Your task to perform on an android device: Show the shopping cart on amazon.com. Add macbook air to the cart on amazon.com, then select checkout. Image 0: 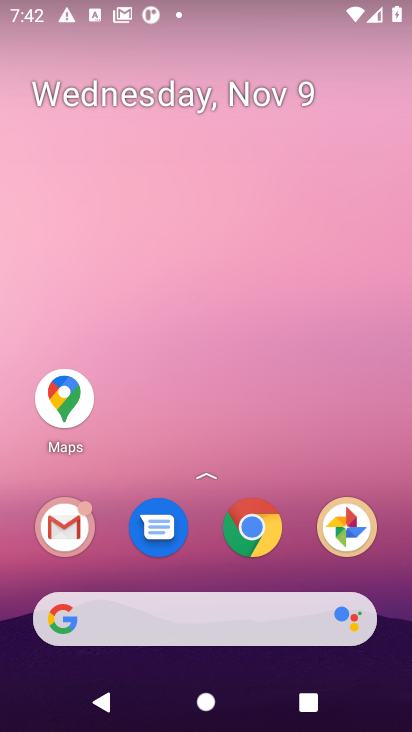
Step 0: click (266, 541)
Your task to perform on an android device: Show the shopping cart on amazon.com. Add macbook air to the cart on amazon.com, then select checkout. Image 1: 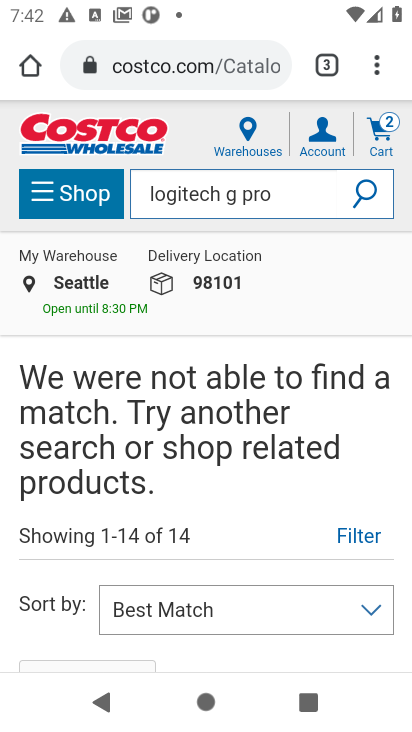
Step 1: click (204, 61)
Your task to perform on an android device: Show the shopping cart on amazon.com. Add macbook air to the cart on amazon.com, then select checkout. Image 2: 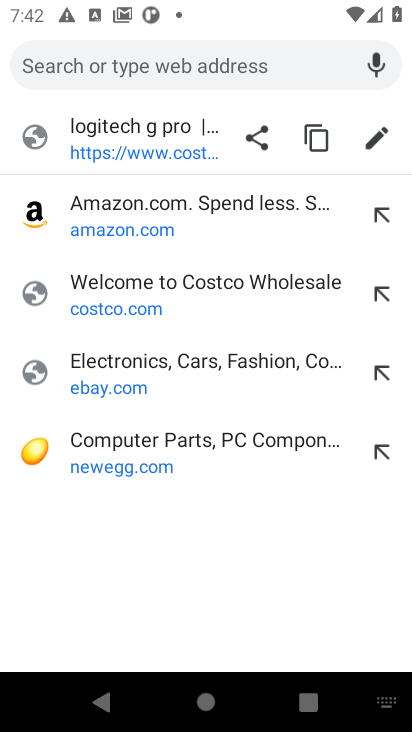
Step 2: click (81, 226)
Your task to perform on an android device: Show the shopping cart on amazon.com. Add macbook air to the cart on amazon.com, then select checkout. Image 3: 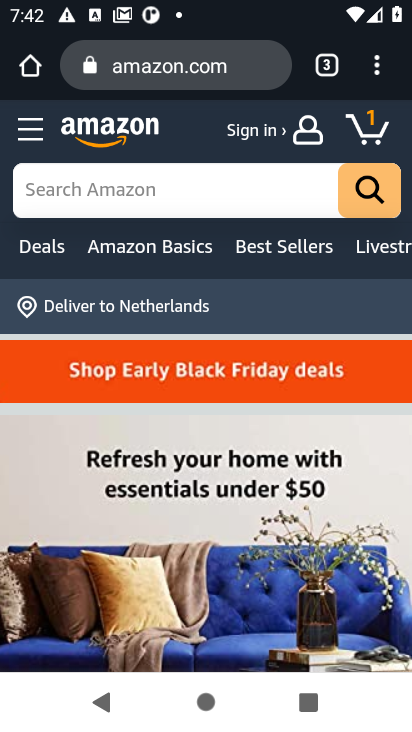
Step 3: click (365, 130)
Your task to perform on an android device: Show the shopping cart on amazon.com. Add macbook air to the cart on amazon.com, then select checkout. Image 4: 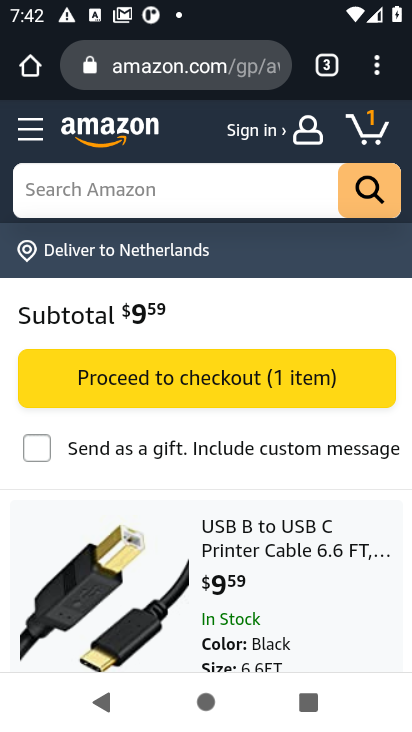
Step 4: drag from (194, 482) to (205, 297)
Your task to perform on an android device: Show the shopping cart on amazon.com. Add macbook air to the cart on amazon.com, then select checkout. Image 5: 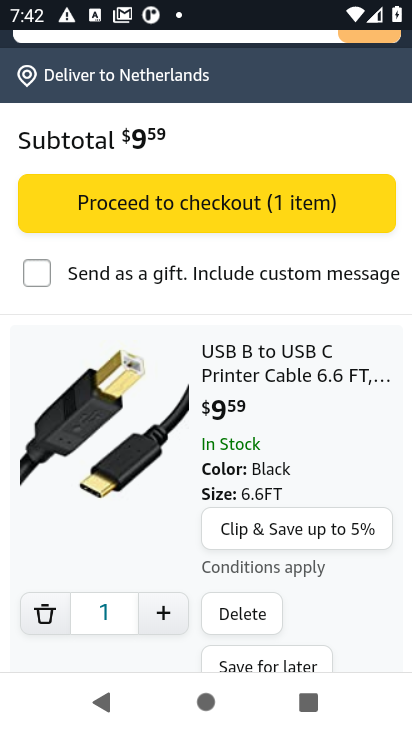
Step 5: drag from (248, 193) to (256, 513)
Your task to perform on an android device: Show the shopping cart on amazon.com. Add macbook air to the cart on amazon.com, then select checkout. Image 6: 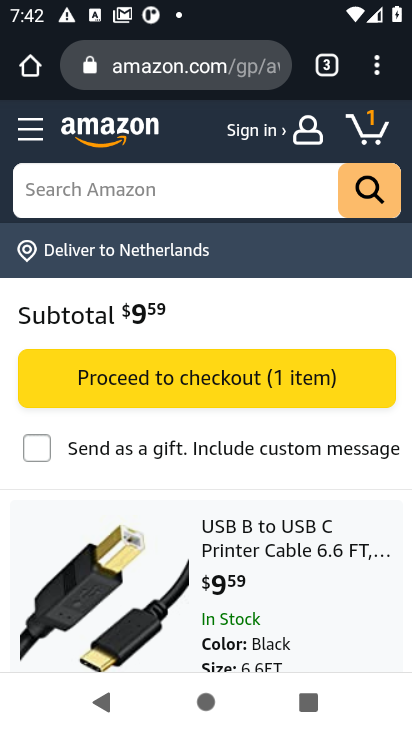
Step 6: click (154, 185)
Your task to perform on an android device: Show the shopping cart on amazon.com. Add macbook air to the cart on amazon.com, then select checkout. Image 7: 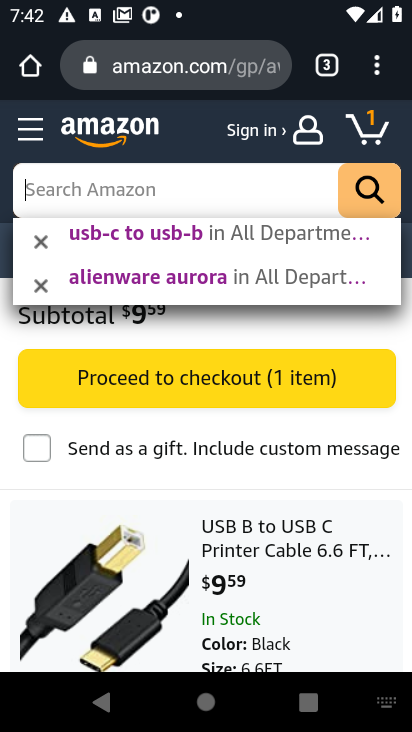
Step 7: type "macbook air"
Your task to perform on an android device: Show the shopping cart on amazon.com. Add macbook air to the cart on amazon.com, then select checkout. Image 8: 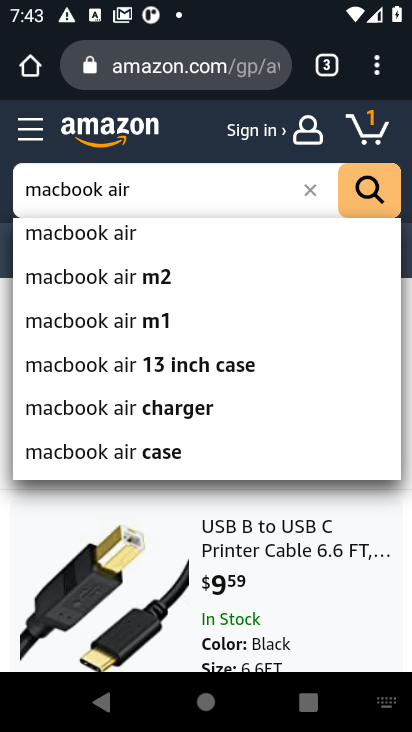
Step 8: click (91, 234)
Your task to perform on an android device: Show the shopping cart on amazon.com. Add macbook air to the cart on amazon.com, then select checkout. Image 9: 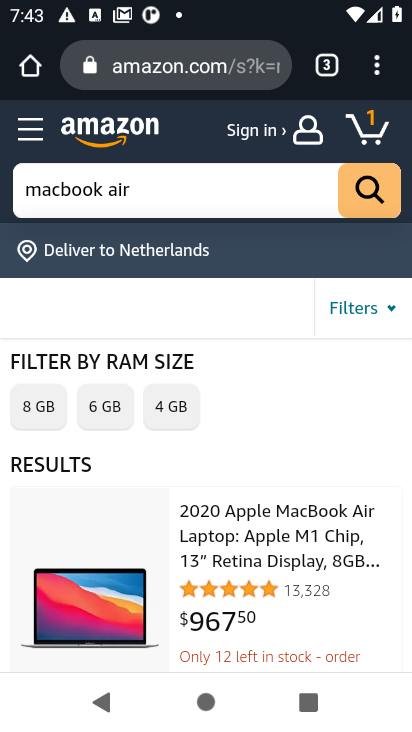
Step 9: drag from (136, 524) to (138, 350)
Your task to perform on an android device: Show the shopping cart on amazon.com. Add macbook air to the cart on amazon.com, then select checkout. Image 10: 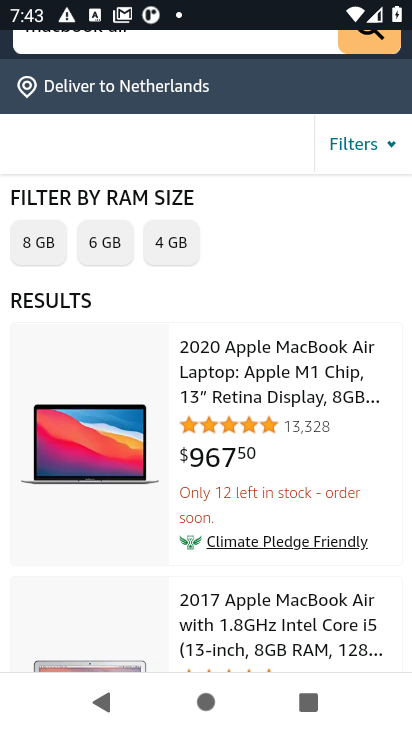
Step 10: click (293, 445)
Your task to perform on an android device: Show the shopping cart on amazon.com. Add macbook air to the cart on amazon.com, then select checkout. Image 11: 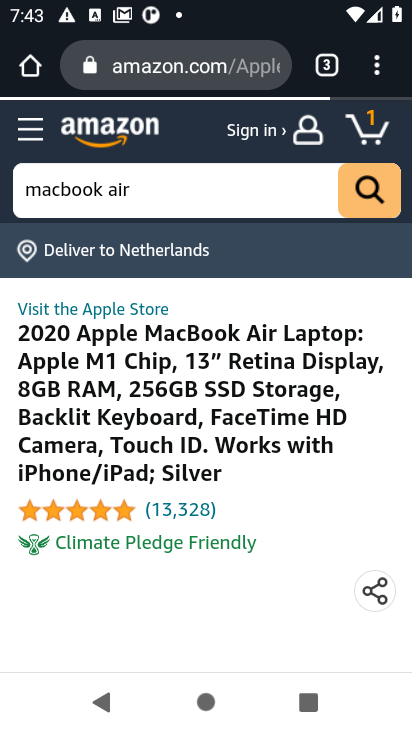
Step 11: drag from (287, 590) to (271, 249)
Your task to perform on an android device: Show the shopping cart on amazon.com. Add macbook air to the cart on amazon.com, then select checkout. Image 12: 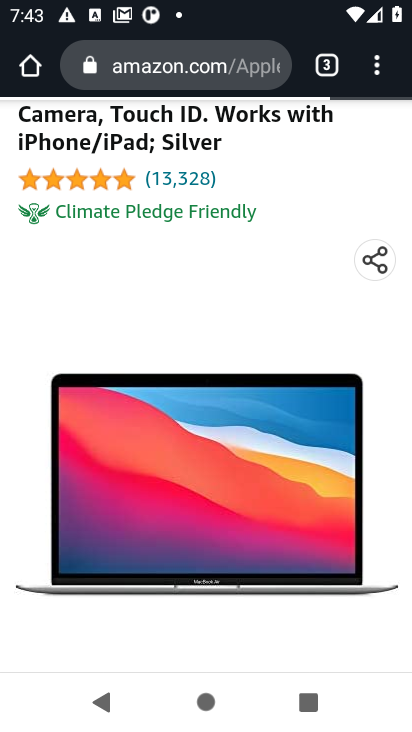
Step 12: drag from (216, 481) to (197, 207)
Your task to perform on an android device: Show the shopping cart on amazon.com. Add macbook air to the cart on amazon.com, then select checkout. Image 13: 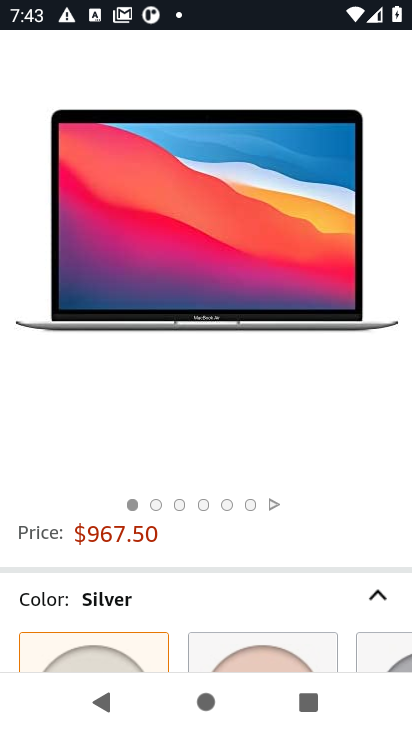
Step 13: drag from (189, 539) to (196, 160)
Your task to perform on an android device: Show the shopping cart on amazon.com. Add macbook air to the cart on amazon.com, then select checkout. Image 14: 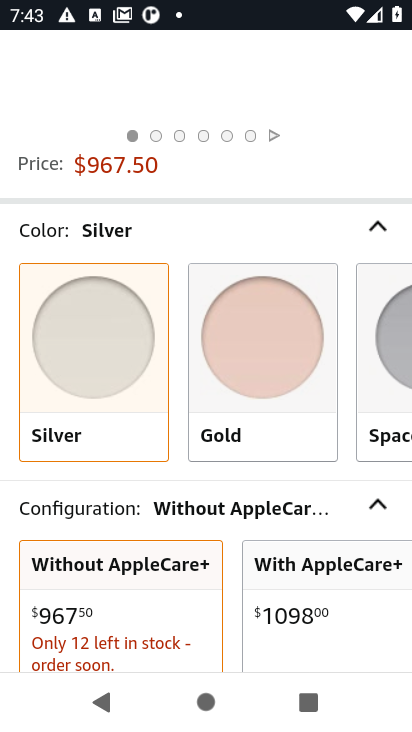
Step 14: drag from (204, 503) to (207, 190)
Your task to perform on an android device: Show the shopping cart on amazon.com. Add macbook air to the cart on amazon.com, then select checkout. Image 15: 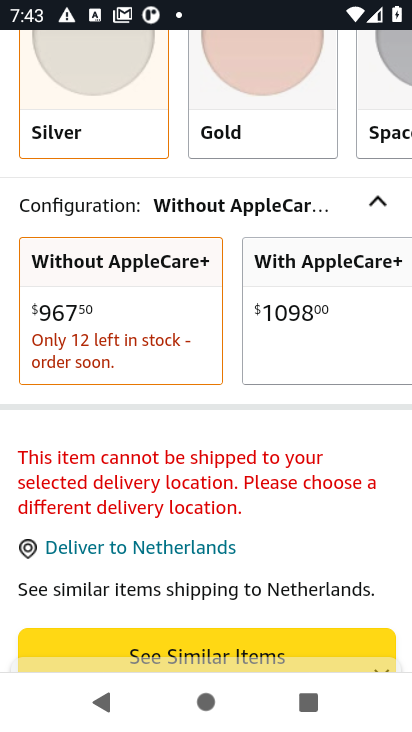
Step 15: drag from (185, 511) to (184, 230)
Your task to perform on an android device: Show the shopping cart on amazon.com. Add macbook air to the cart on amazon.com, then select checkout. Image 16: 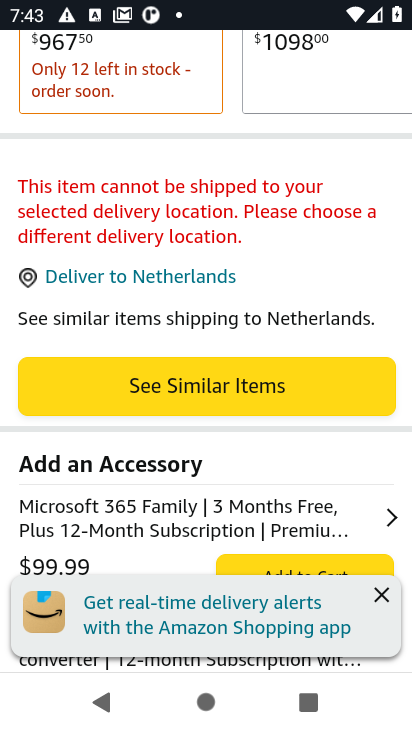
Step 16: drag from (185, 230) to (210, 451)
Your task to perform on an android device: Show the shopping cart on amazon.com. Add macbook air to the cart on amazon.com, then select checkout. Image 17: 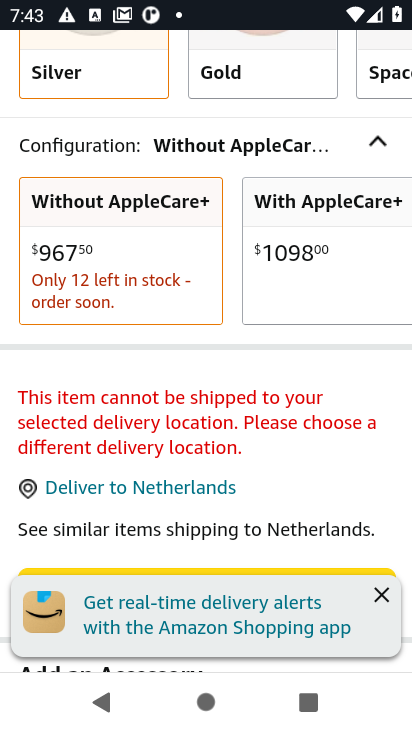
Step 17: press back button
Your task to perform on an android device: Show the shopping cart on amazon.com. Add macbook air to the cart on amazon.com, then select checkout. Image 18: 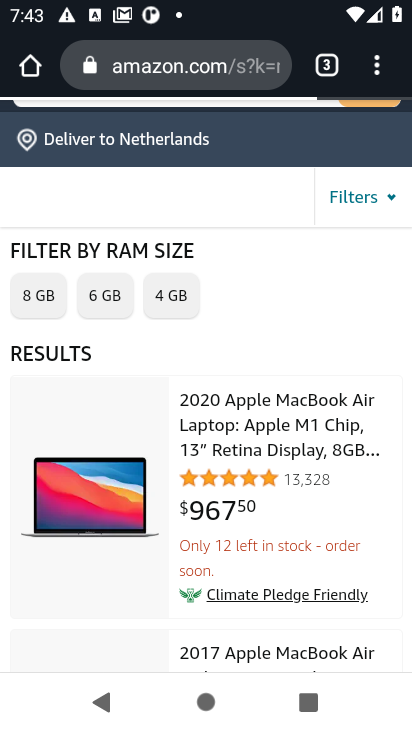
Step 18: drag from (240, 468) to (263, 232)
Your task to perform on an android device: Show the shopping cart on amazon.com. Add macbook air to the cart on amazon.com, then select checkout. Image 19: 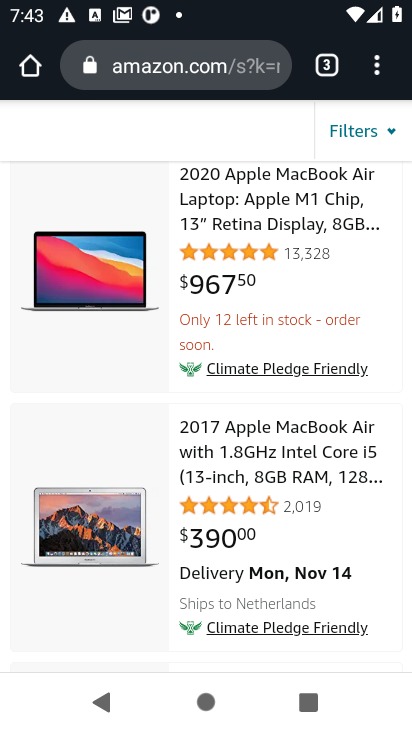
Step 19: drag from (201, 461) to (223, 297)
Your task to perform on an android device: Show the shopping cart on amazon.com. Add macbook air to the cart on amazon.com, then select checkout. Image 20: 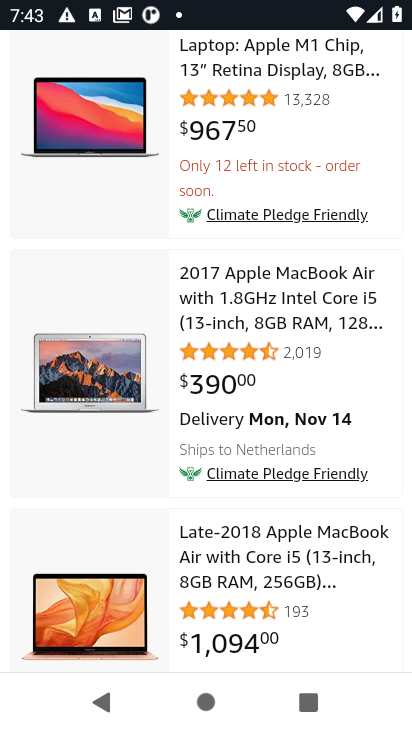
Step 20: click (309, 376)
Your task to perform on an android device: Show the shopping cart on amazon.com. Add macbook air to the cart on amazon.com, then select checkout. Image 21: 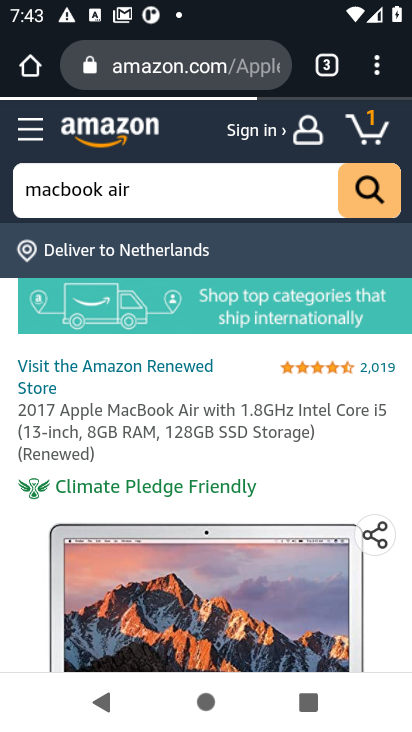
Step 21: drag from (198, 468) to (216, 151)
Your task to perform on an android device: Show the shopping cart on amazon.com. Add macbook air to the cart on amazon.com, then select checkout. Image 22: 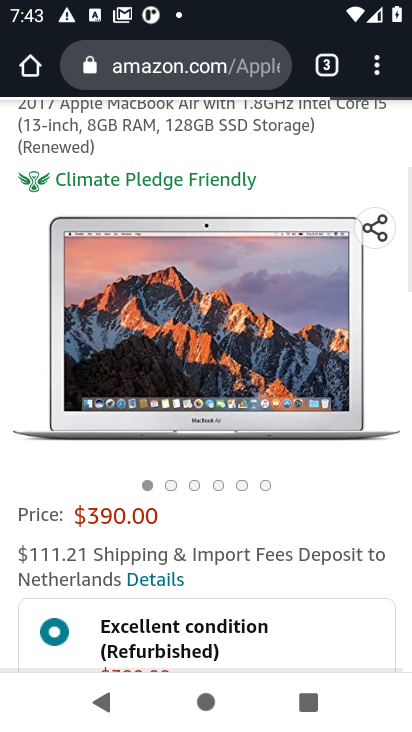
Step 22: drag from (142, 491) to (195, 116)
Your task to perform on an android device: Show the shopping cart on amazon.com. Add macbook air to the cart on amazon.com, then select checkout. Image 23: 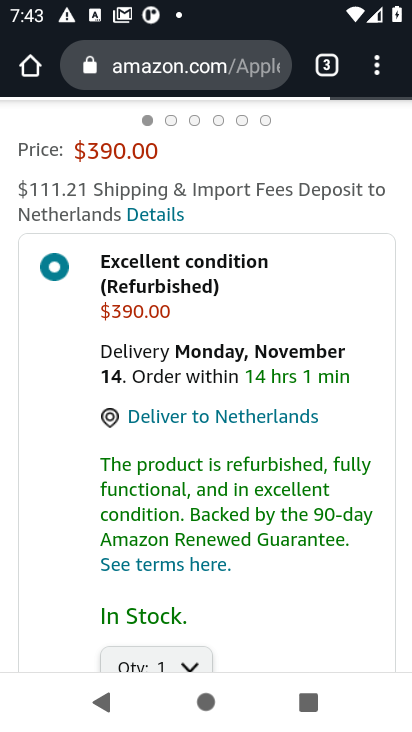
Step 23: drag from (182, 409) to (199, 230)
Your task to perform on an android device: Show the shopping cart on amazon.com. Add macbook air to the cart on amazon.com, then select checkout. Image 24: 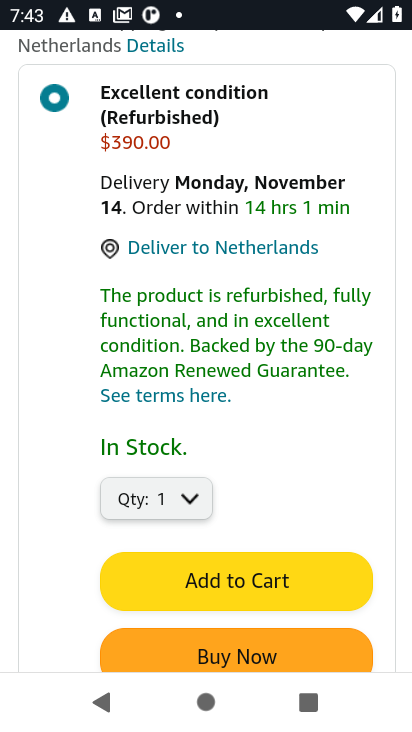
Step 24: click (201, 566)
Your task to perform on an android device: Show the shopping cart on amazon.com. Add macbook air to the cart on amazon.com, then select checkout. Image 25: 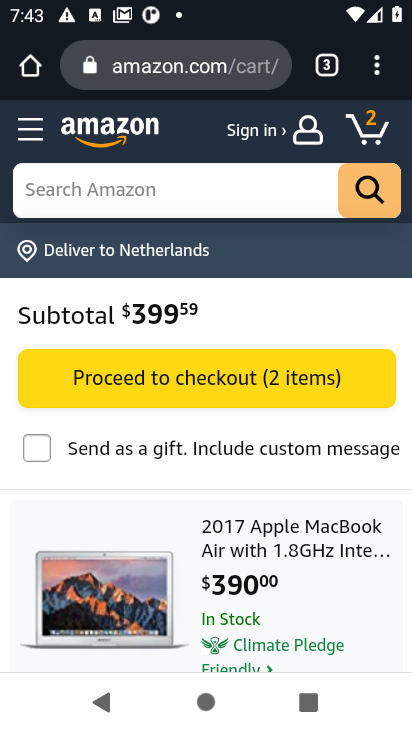
Step 25: click (223, 389)
Your task to perform on an android device: Show the shopping cart on amazon.com. Add macbook air to the cart on amazon.com, then select checkout. Image 26: 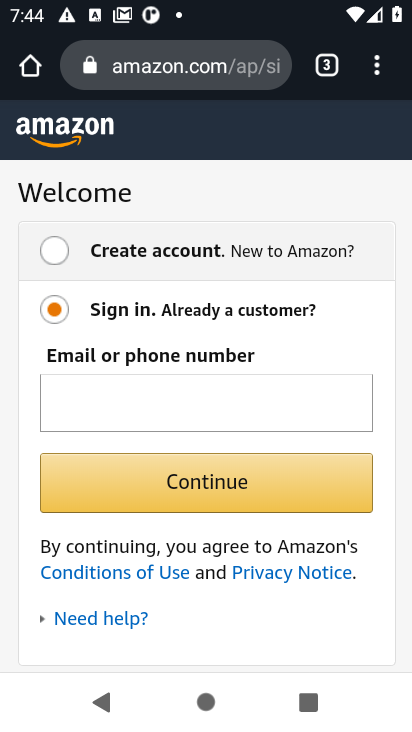
Step 26: task complete